Your task to perform on an android device: Open battery settings Image 0: 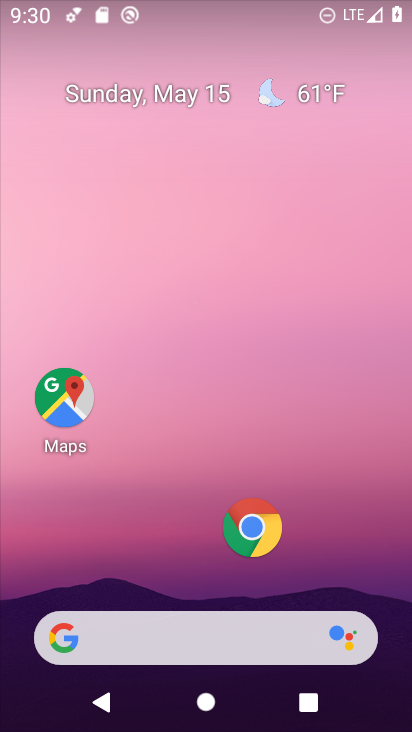
Step 0: press home button
Your task to perform on an android device: Open battery settings Image 1: 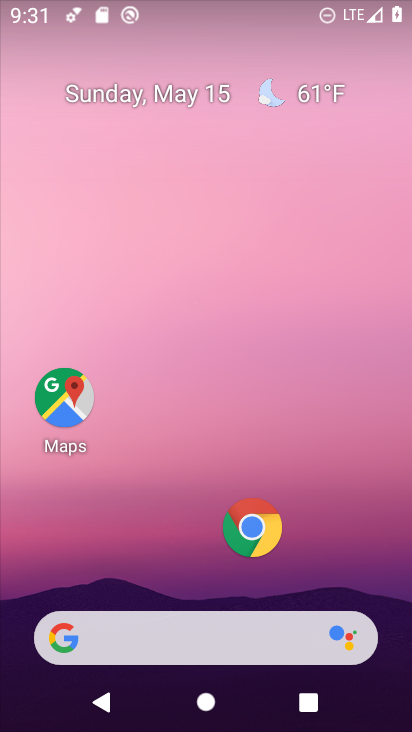
Step 1: drag from (213, 579) to (252, 22)
Your task to perform on an android device: Open battery settings Image 2: 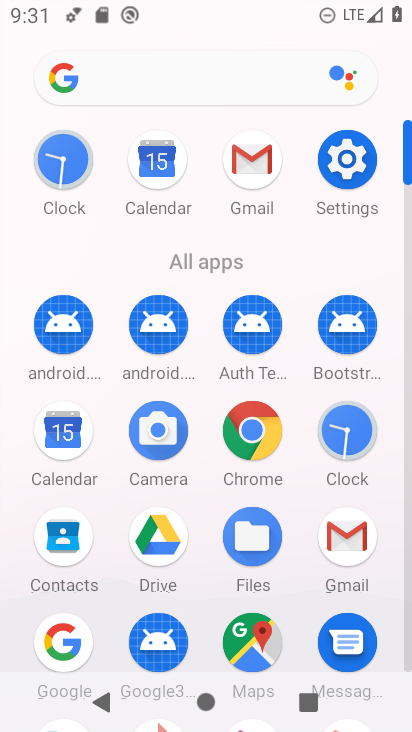
Step 2: click (343, 152)
Your task to perform on an android device: Open battery settings Image 3: 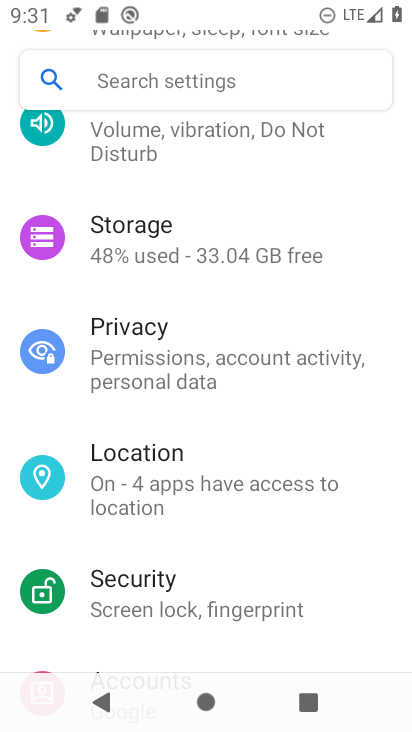
Step 3: drag from (178, 162) to (187, 637)
Your task to perform on an android device: Open battery settings Image 4: 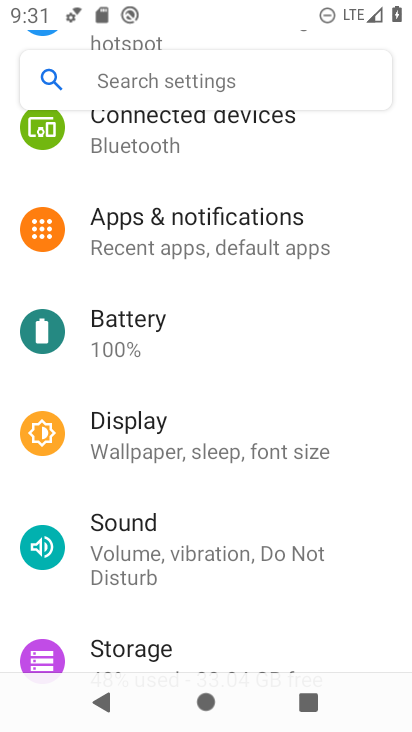
Step 4: click (161, 337)
Your task to perform on an android device: Open battery settings Image 5: 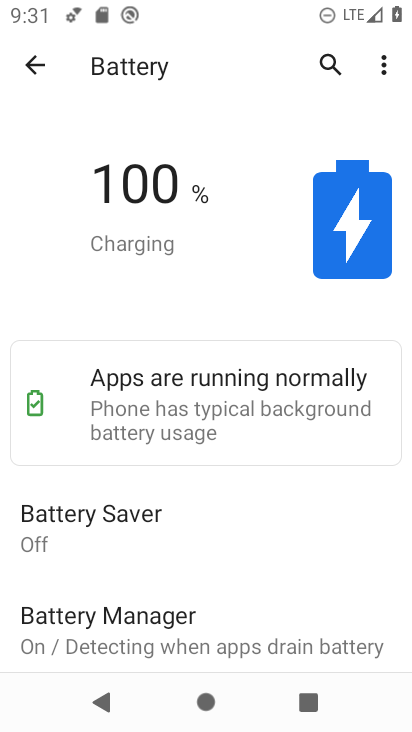
Step 5: task complete